Your task to perform on an android device: open device folders in google photos Image 0: 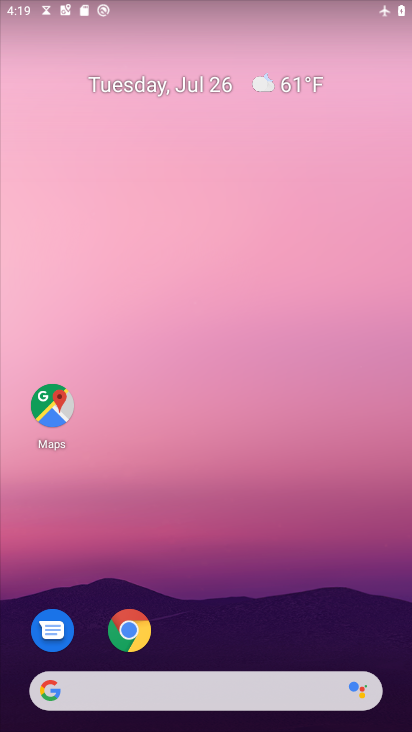
Step 0: drag from (268, 633) to (170, 14)
Your task to perform on an android device: open device folders in google photos Image 1: 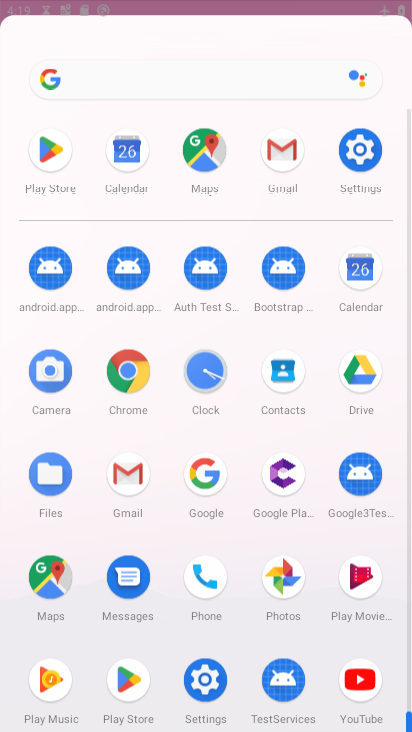
Step 1: drag from (214, 386) to (164, 29)
Your task to perform on an android device: open device folders in google photos Image 2: 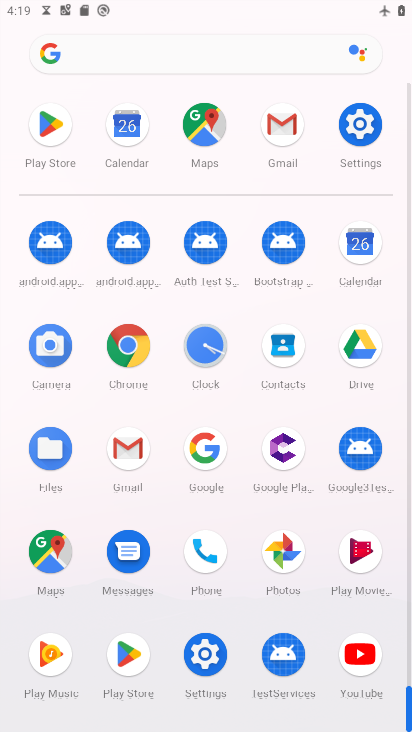
Step 2: click (284, 543)
Your task to perform on an android device: open device folders in google photos Image 3: 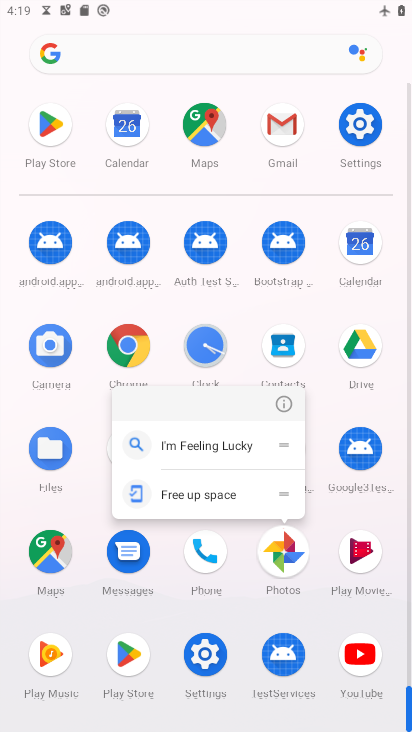
Step 3: click (284, 555)
Your task to perform on an android device: open device folders in google photos Image 4: 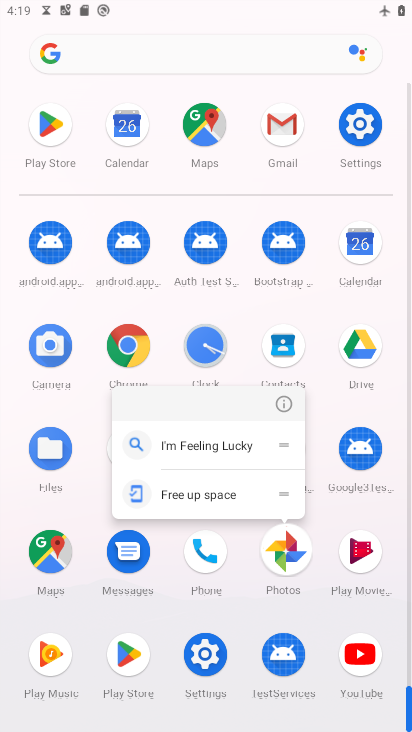
Step 4: click (293, 552)
Your task to perform on an android device: open device folders in google photos Image 5: 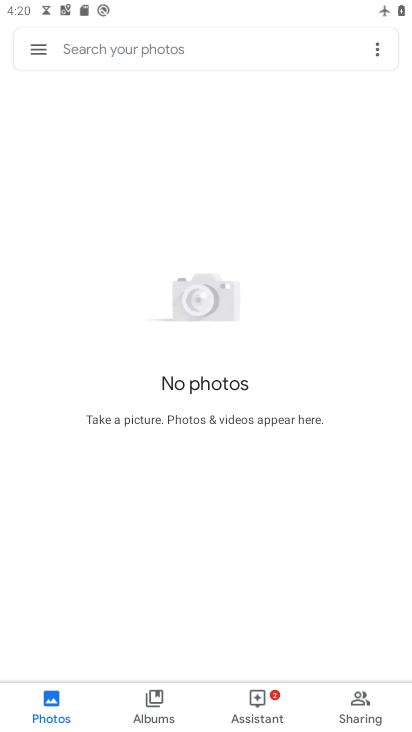
Step 5: click (35, 54)
Your task to perform on an android device: open device folders in google photos Image 6: 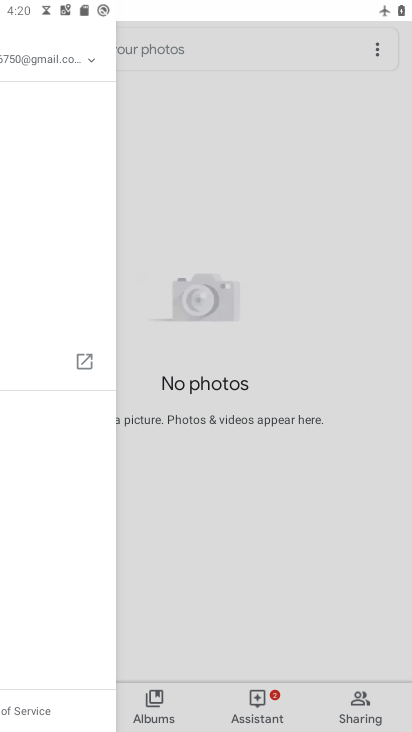
Step 6: click (34, 52)
Your task to perform on an android device: open device folders in google photos Image 7: 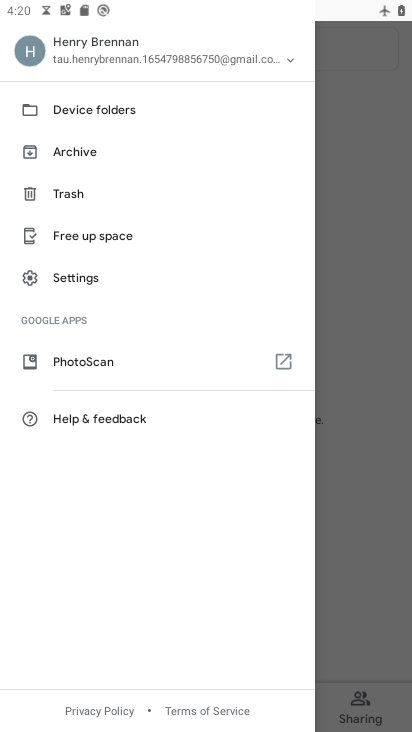
Step 7: click (77, 112)
Your task to perform on an android device: open device folders in google photos Image 8: 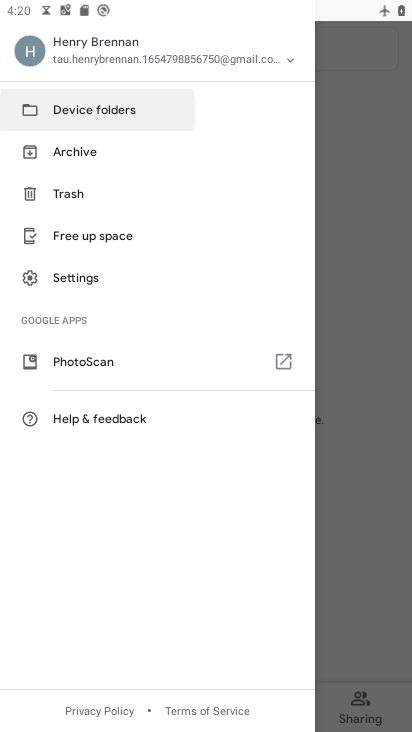
Step 8: click (81, 111)
Your task to perform on an android device: open device folders in google photos Image 9: 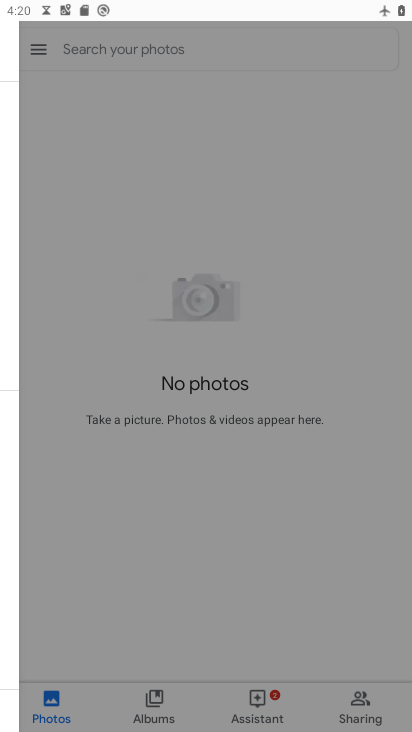
Step 9: click (82, 114)
Your task to perform on an android device: open device folders in google photos Image 10: 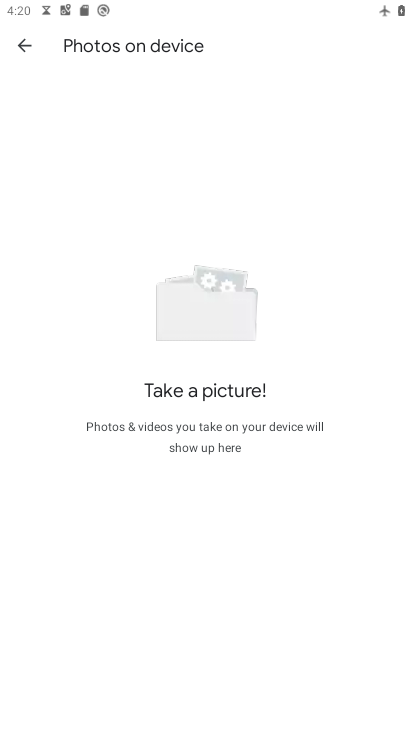
Step 10: task complete